Your task to perform on an android device: Go to CNN.com Image 0: 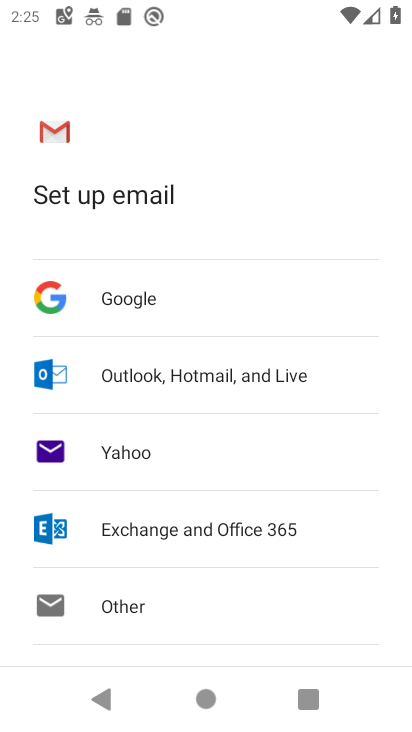
Step 0: press home button
Your task to perform on an android device: Go to CNN.com Image 1: 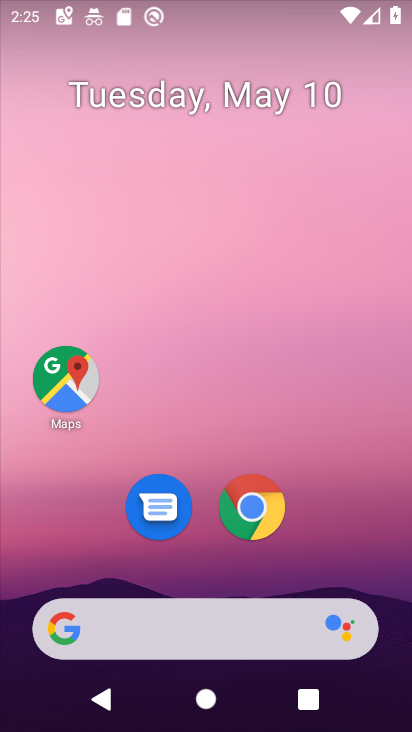
Step 1: click (256, 503)
Your task to perform on an android device: Go to CNN.com Image 2: 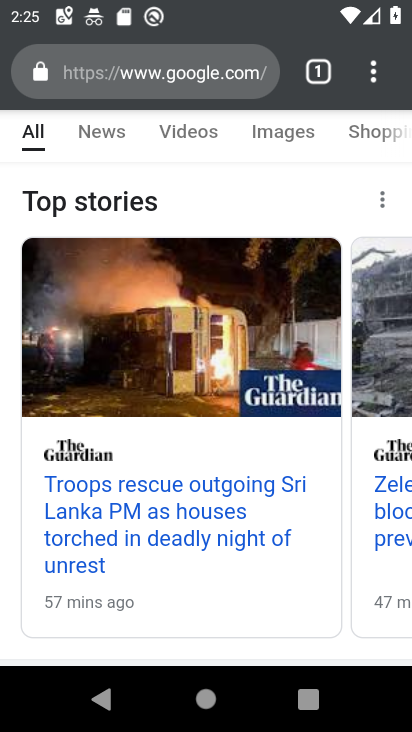
Step 2: click (121, 78)
Your task to perform on an android device: Go to CNN.com Image 3: 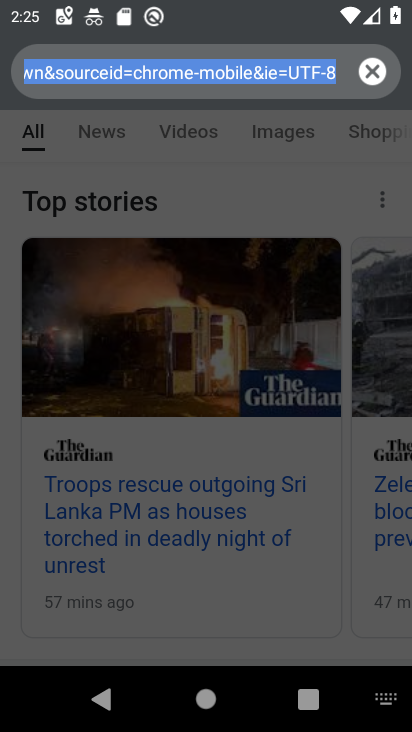
Step 3: type "CNN.com"
Your task to perform on an android device: Go to CNN.com Image 4: 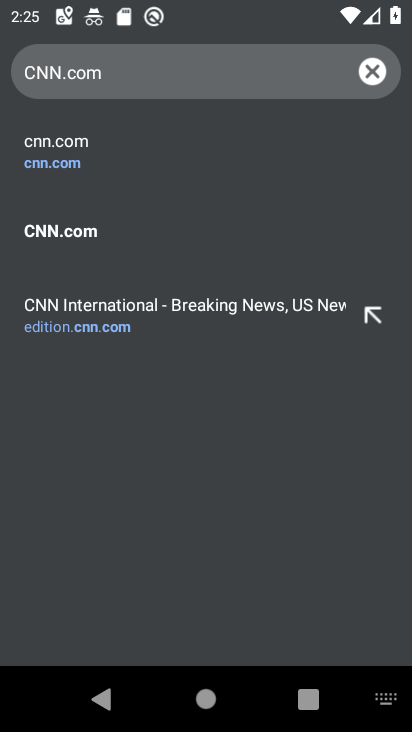
Step 4: click (78, 235)
Your task to perform on an android device: Go to CNN.com Image 5: 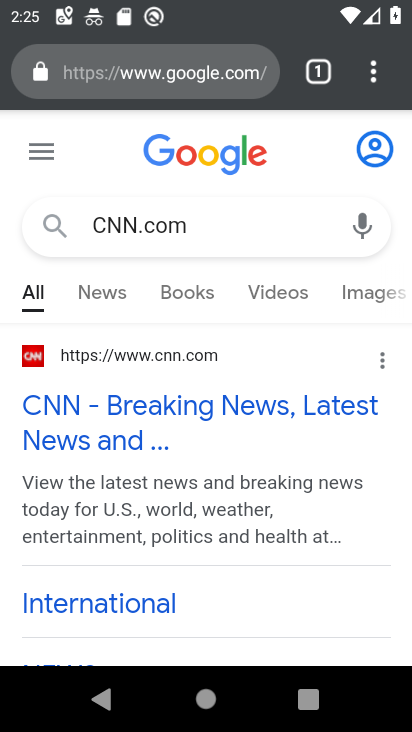
Step 5: task complete